Your task to perform on an android device: Open Google Chrome Image 0: 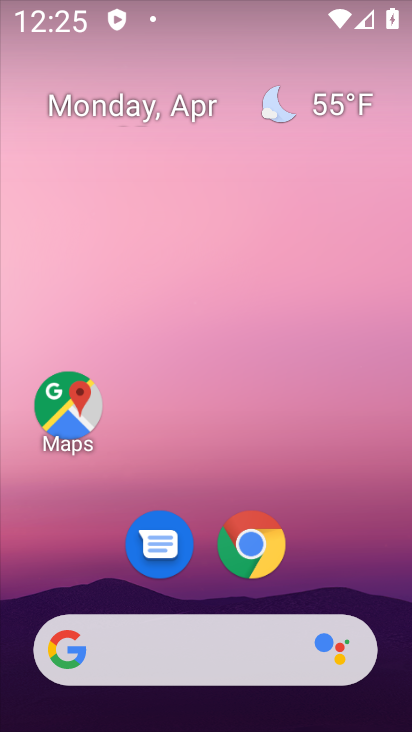
Step 0: click (257, 546)
Your task to perform on an android device: Open Google Chrome Image 1: 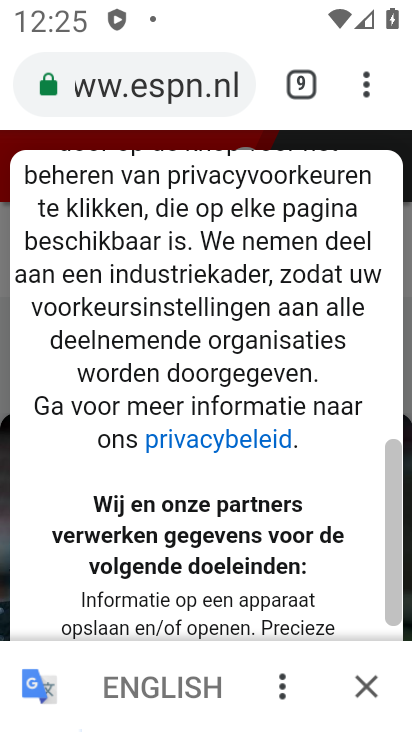
Step 1: task complete